Your task to perform on an android device: Open internet settings Image 0: 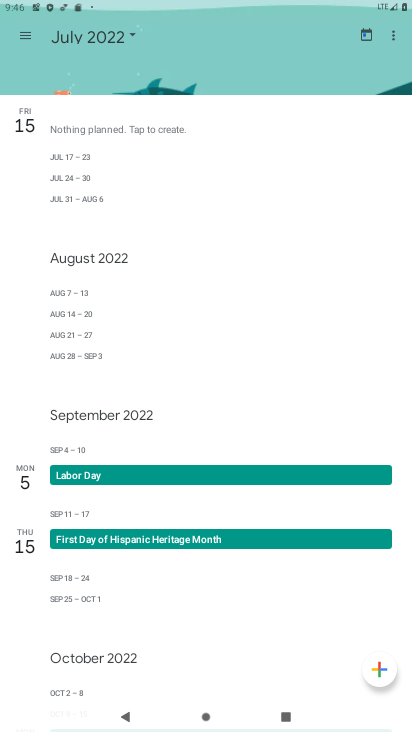
Step 0: press home button
Your task to perform on an android device: Open internet settings Image 1: 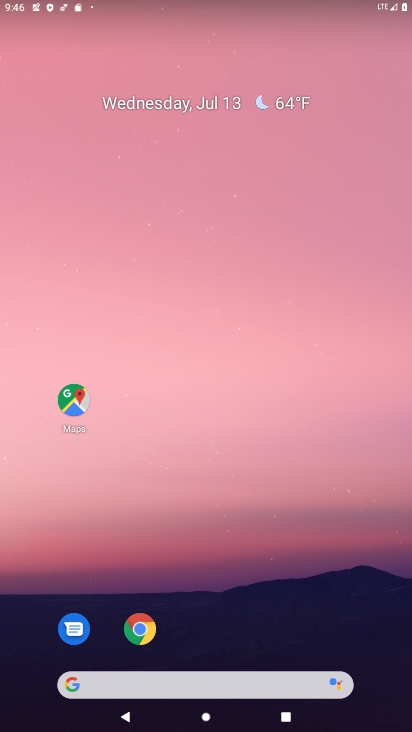
Step 1: drag from (229, 644) to (237, 132)
Your task to perform on an android device: Open internet settings Image 2: 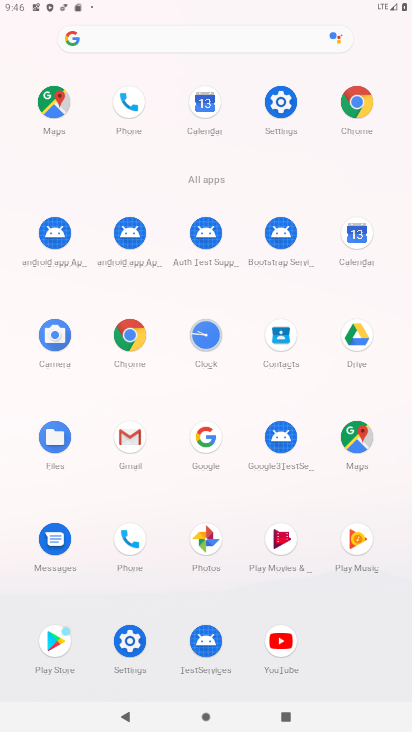
Step 2: click (281, 89)
Your task to perform on an android device: Open internet settings Image 3: 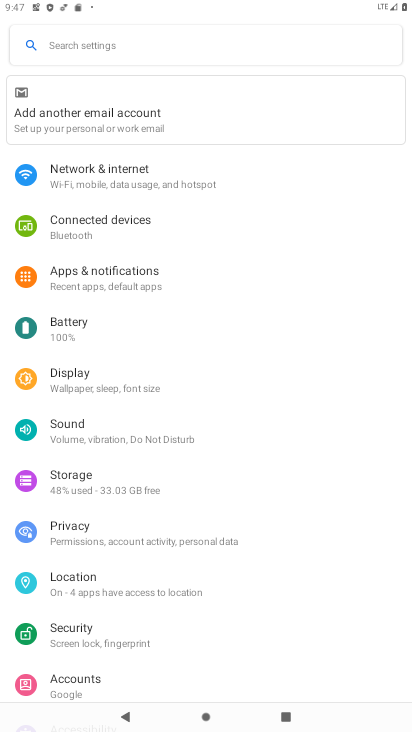
Step 3: click (125, 179)
Your task to perform on an android device: Open internet settings Image 4: 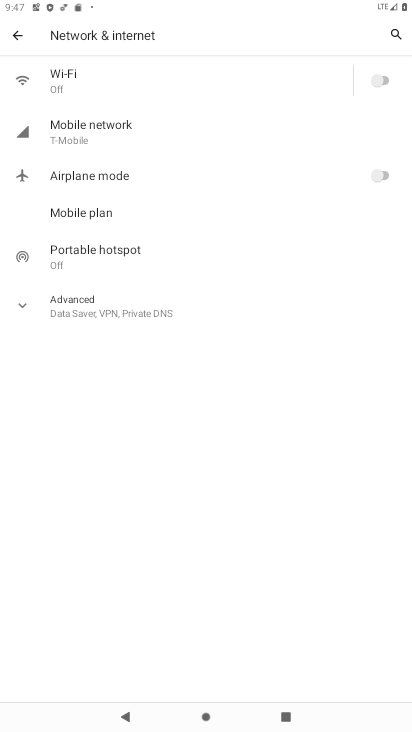
Step 4: task complete